Your task to perform on an android device: check google app version Image 0: 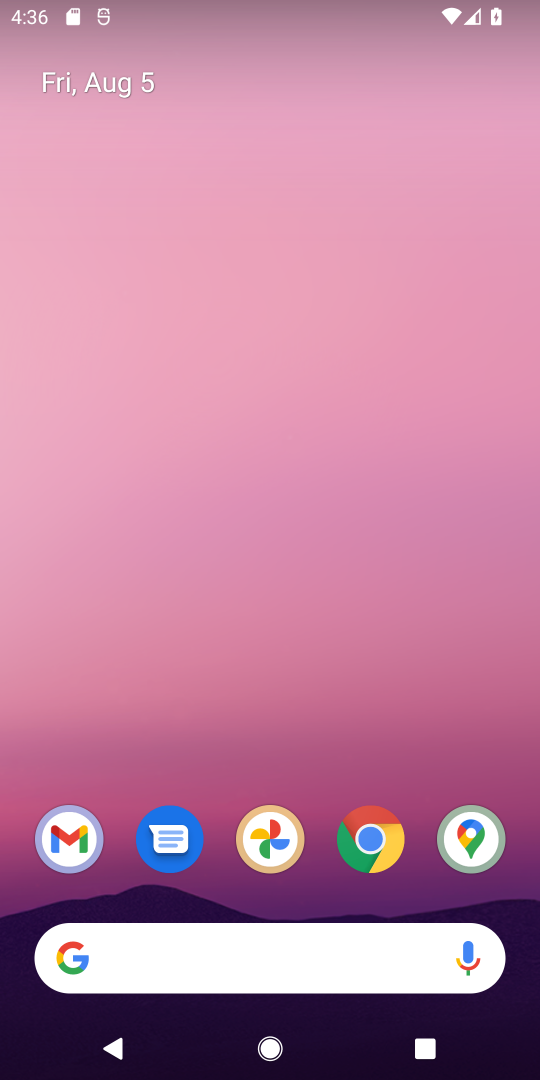
Step 0: drag from (294, 782) to (271, 277)
Your task to perform on an android device: check google app version Image 1: 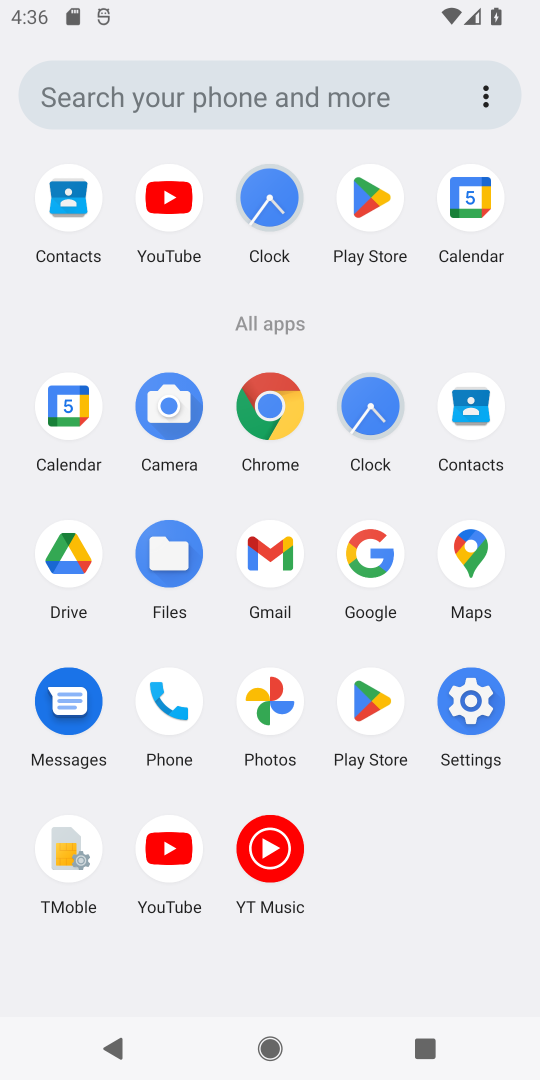
Step 1: click (366, 561)
Your task to perform on an android device: check google app version Image 2: 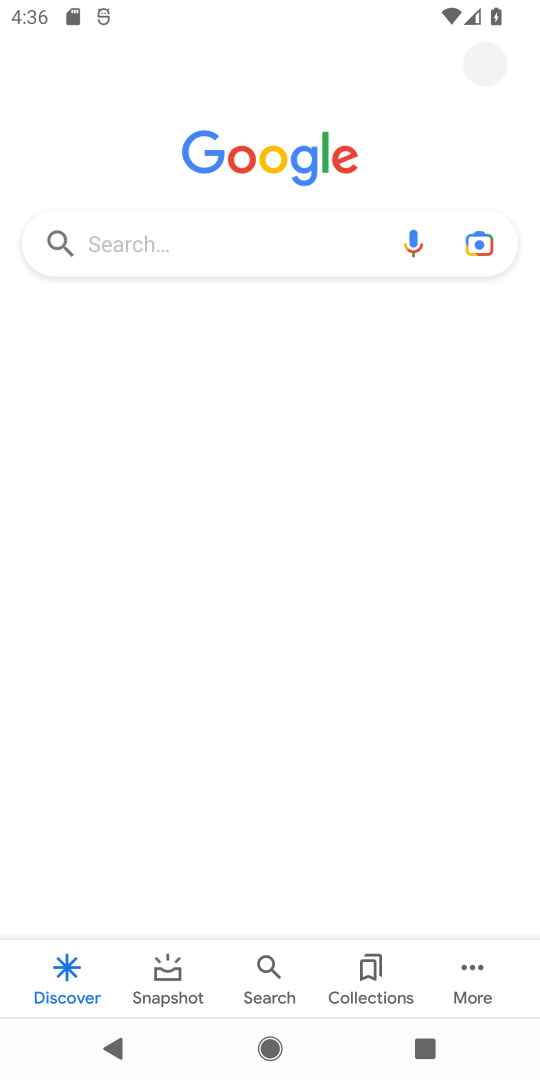
Step 2: click (463, 964)
Your task to perform on an android device: check google app version Image 3: 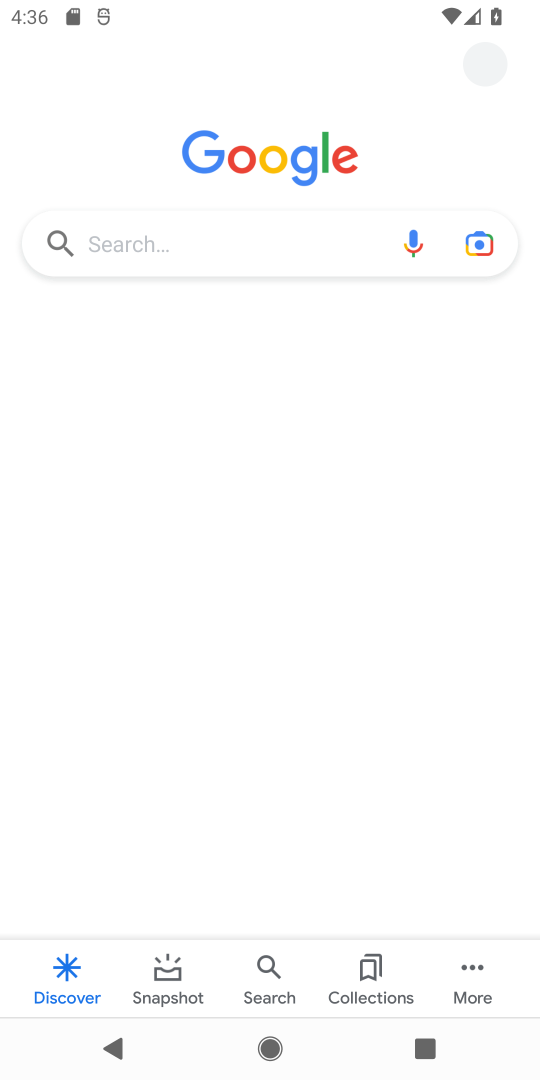
Step 3: click (458, 955)
Your task to perform on an android device: check google app version Image 4: 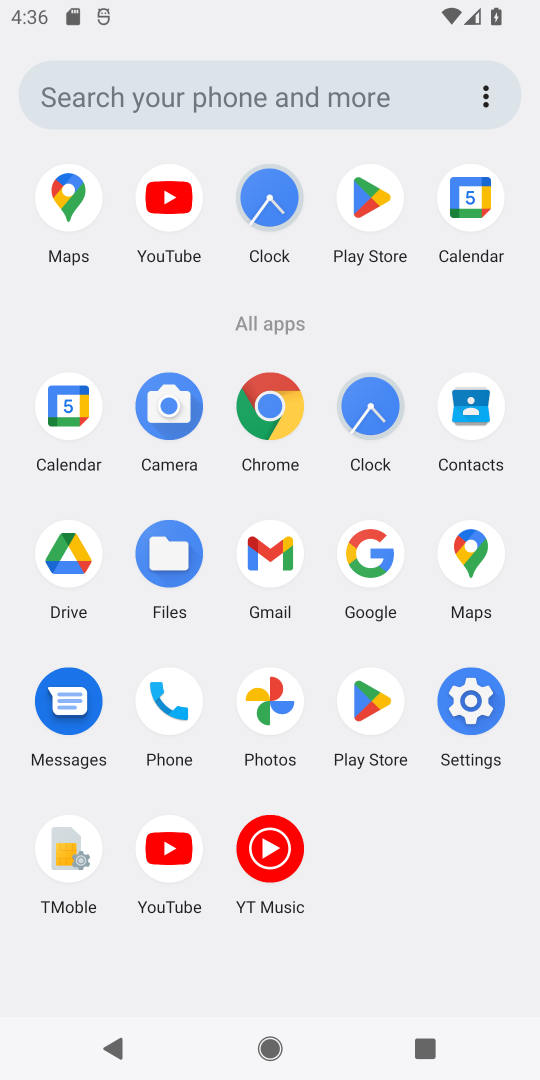
Step 4: click (342, 532)
Your task to perform on an android device: check google app version Image 5: 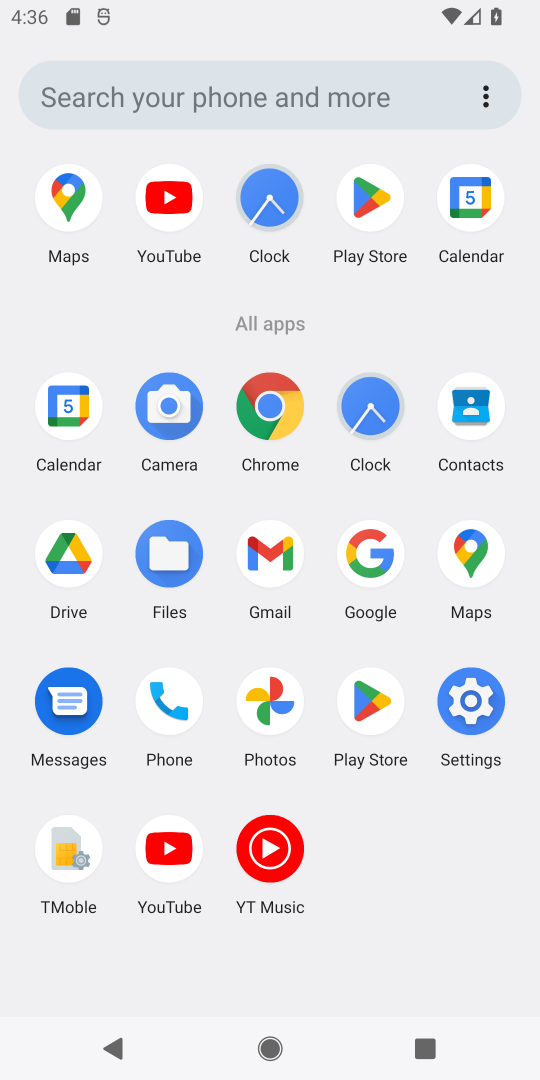
Step 5: click (363, 546)
Your task to perform on an android device: check google app version Image 6: 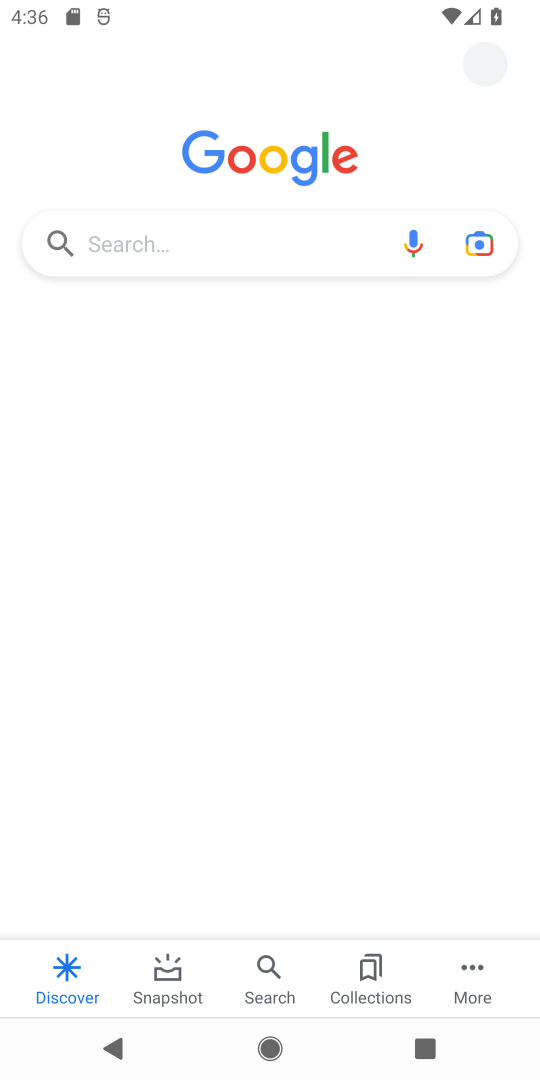
Step 6: click (460, 970)
Your task to perform on an android device: check google app version Image 7: 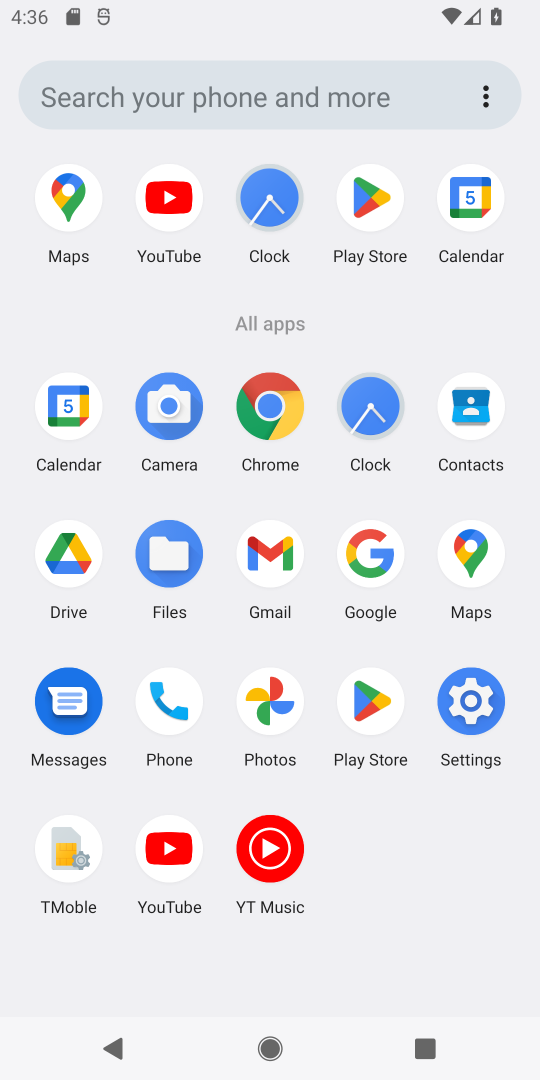
Step 7: task complete